Your task to perform on an android device: check storage Image 0: 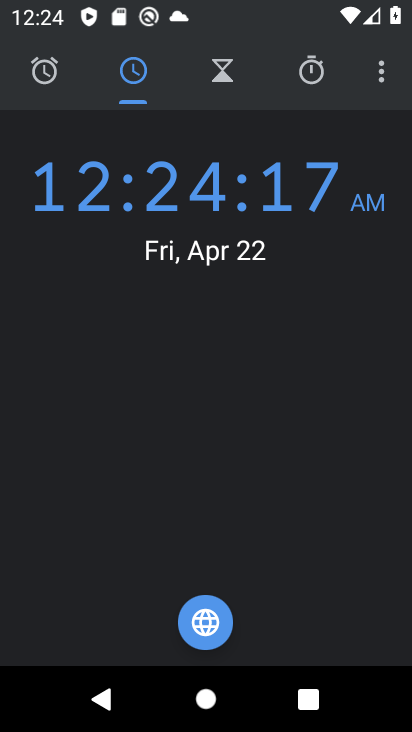
Step 0: press home button
Your task to perform on an android device: check storage Image 1: 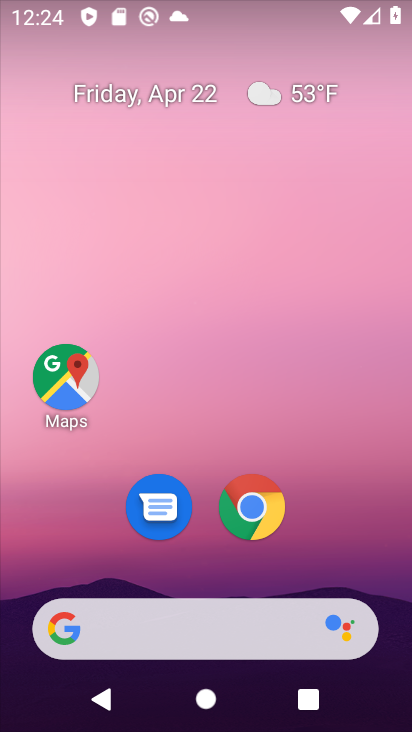
Step 1: drag from (328, 404) to (301, 68)
Your task to perform on an android device: check storage Image 2: 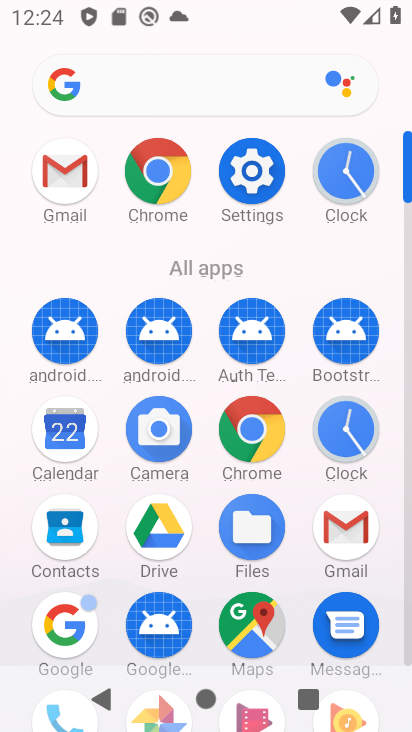
Step 2: click (253, 165)
Your task to perform on an android device: check storage Image 3: 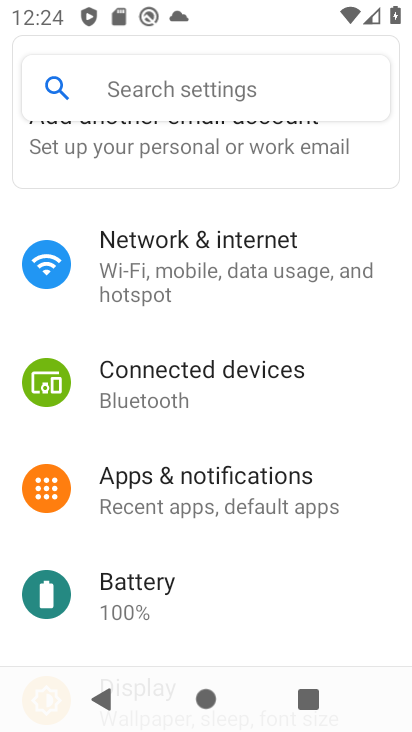
Step 3: drag from (171, 591) to (198, 205)
Your task to perform on an android device: check storage Image 4: 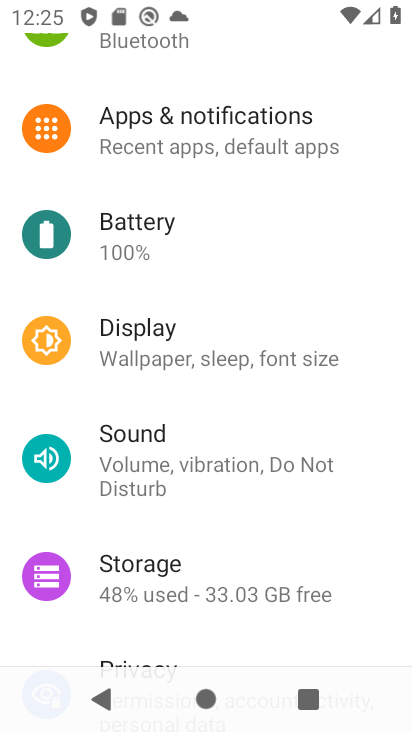
Step 4: click (126, 580)
Your task to perform on an android device: check storage Image 5: 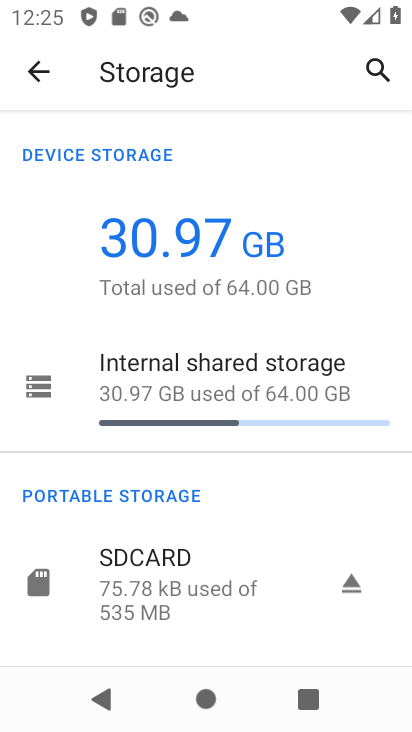
Step 5: task complete